Your task to perform on an android device: see creations saved in the google photos Image 0: 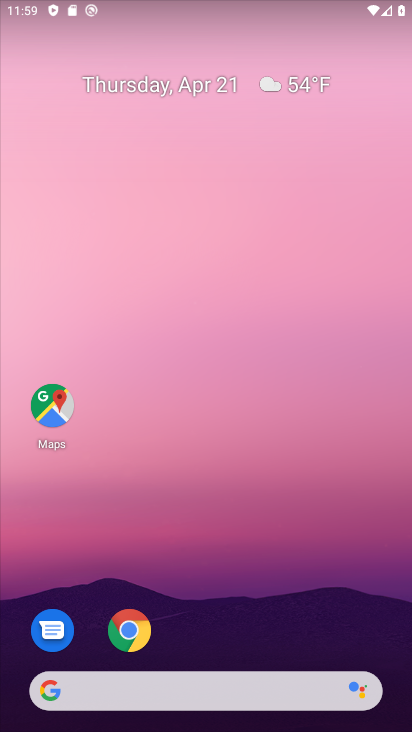
Step 0: drag from (247, 558) to (305, 236)
Your task to perform on an android device: see creations saved in the google photos Image 1: 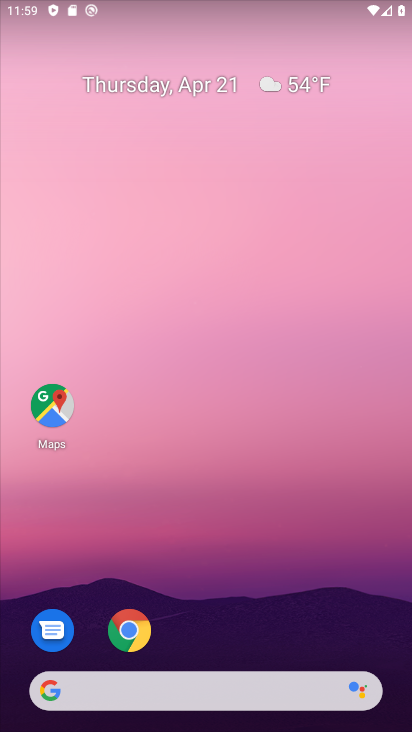
Step 1: drag from (191, 677) to (289, 248)
Your task to perform on an android device: see creations saved in the google photos Image 2: 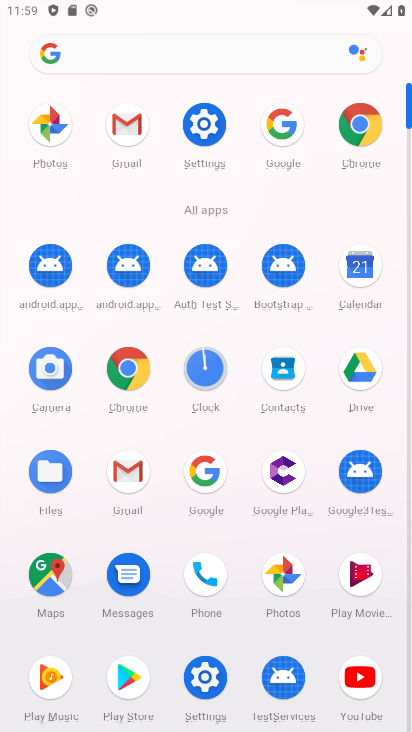
Step 2: click (281, 571)
Your task to perform on an android device: see creations saved in the google photos Image 3: 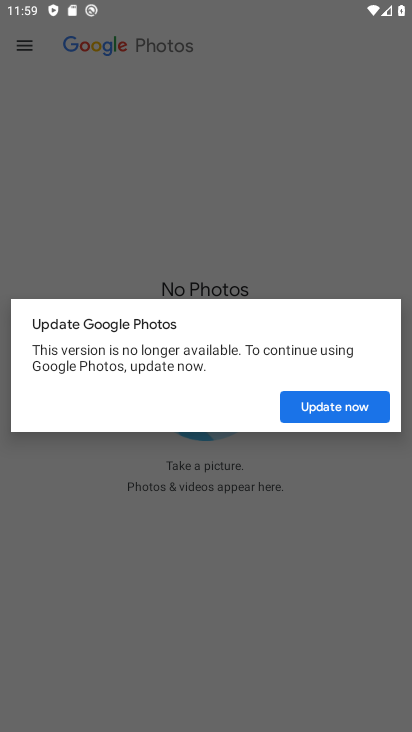
Step 3: click (325, 410)
Your task to perform on an android device: see creations saved in the google photos Image 4: 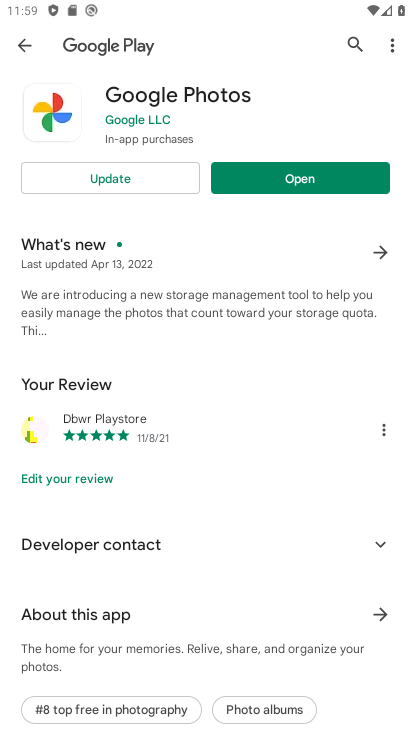
Step 4: click (123, 177)
Your task to perform on an android device: see creations saved in the google photos Image 5: 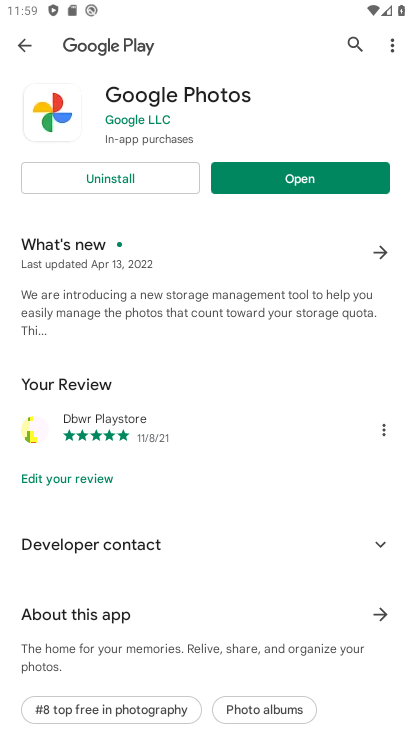
Step 5: click (304, 174)
Your task to perform on an android device: see creations saved in the google photos Image 6: 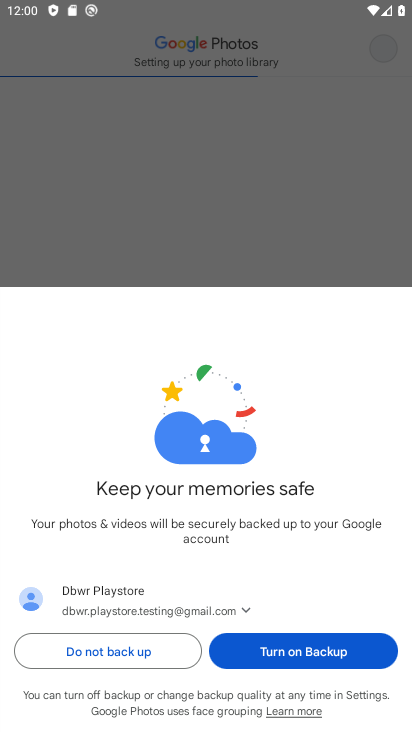
Step 6: click (361, 692)
Your task to perform on an android device: see creations saved in the google photos Image 7: 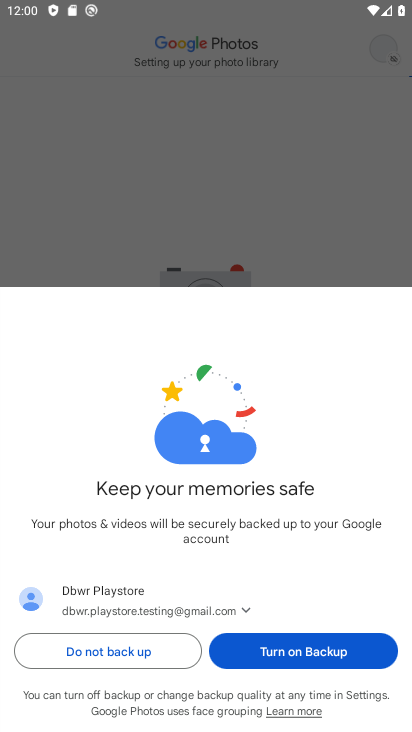
Step 7: click (350, 660)
Your task to perform on an android device: see creations saved in the google photos Image 8: 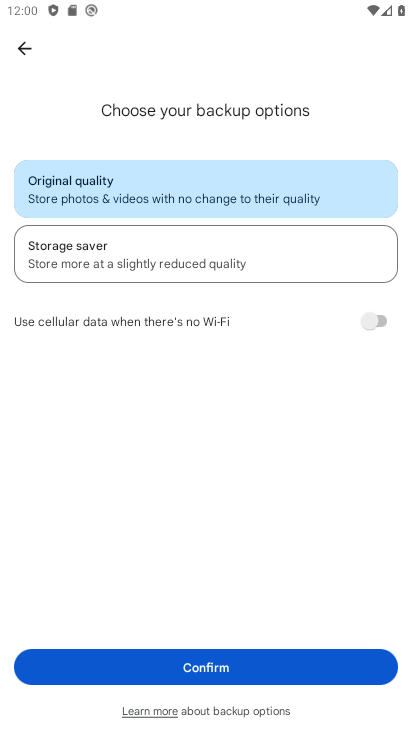
Step 8: click (191, 675)
Your task to perform on an android device: see creations saved in the google photos Image 9: 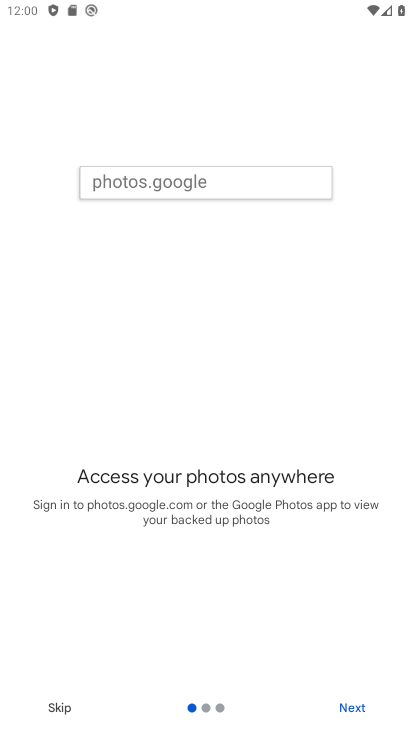
Step 9: click (346, 712)
Your task to perform on an android device: see creations saved in the google photos Image 10: 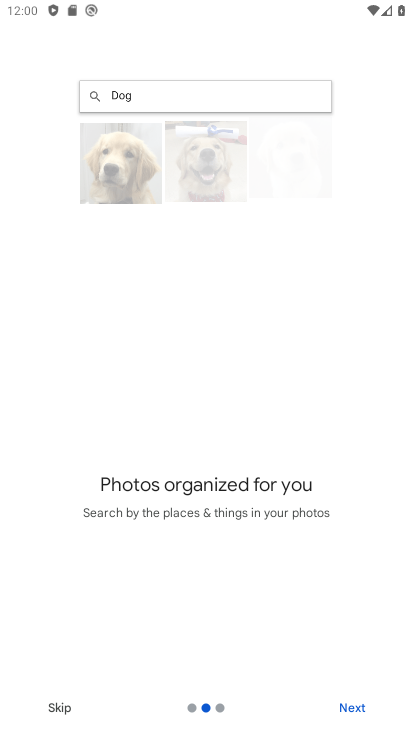
Step 10: click (346, 712)
Your task to perform on an android device: see creations saved in the google photos Image 11: 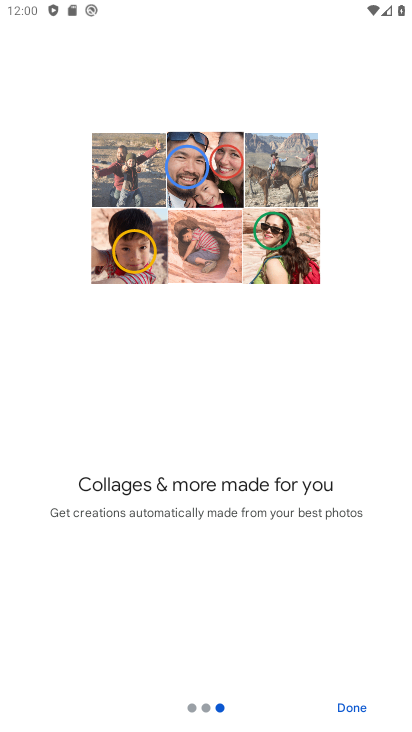
Step 11: click (346, 712)
Your task to perform on an android device: see creations saved in the google photos Image 12: 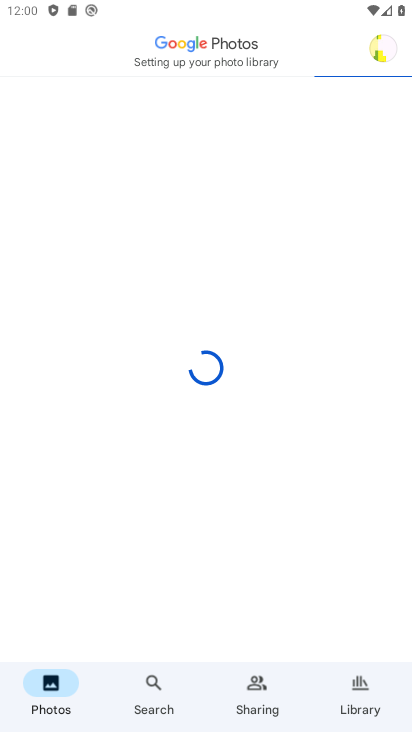
Step 12: click (357, 692)
Your task to perform on an android device: see creations saved in the google photos Image 13: 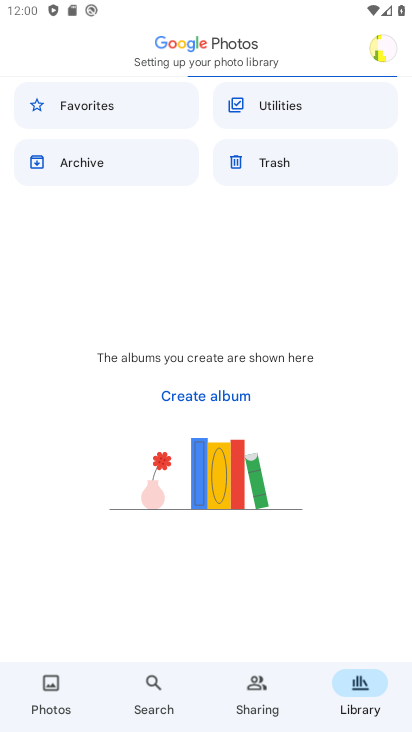
Step 13: task complete